Your task to perform on an android device: check data usage Image 0: 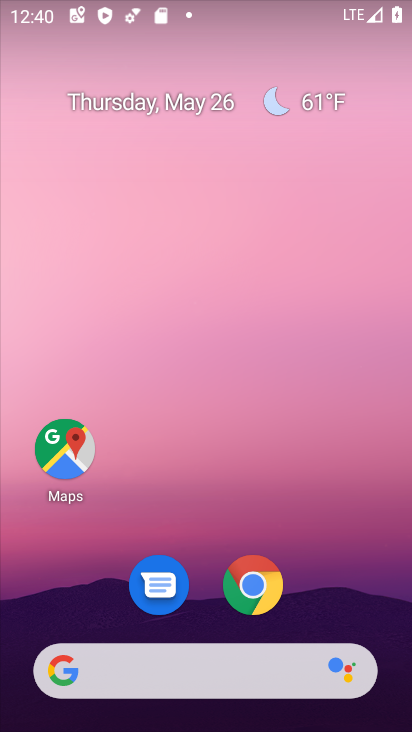
Step 0: drag from (225, 511) to (245, 24)
Your task to perform on an android device: check data usage Image 1: 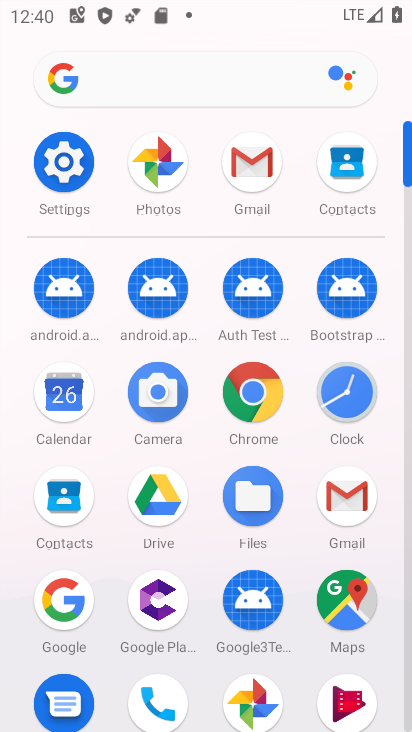
Step 1: click (68, 151)
Your task to perform on an android device: check data usage Image 2: 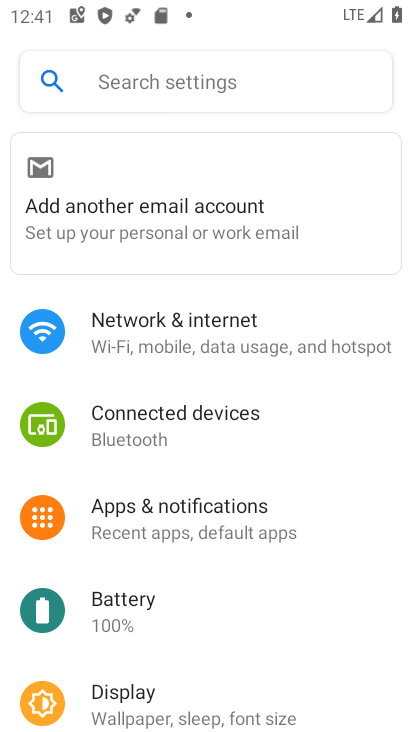
Step 2: click (257, 330)
Your task to perform on an android device: check data usage Image 3: 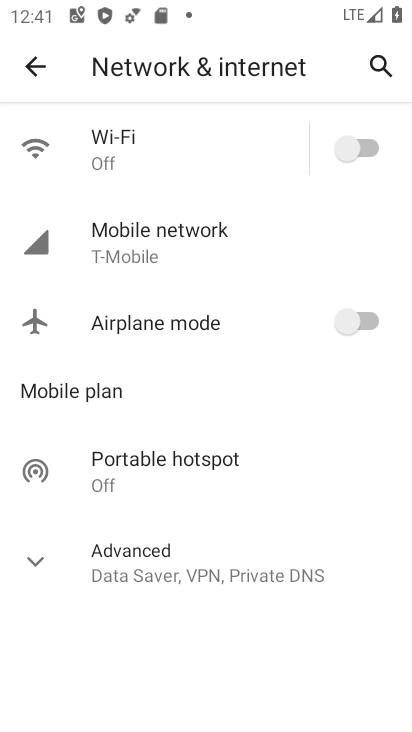
Step 3: click (224, 251)
Your task to perform on an android device: check data usage Image 4: 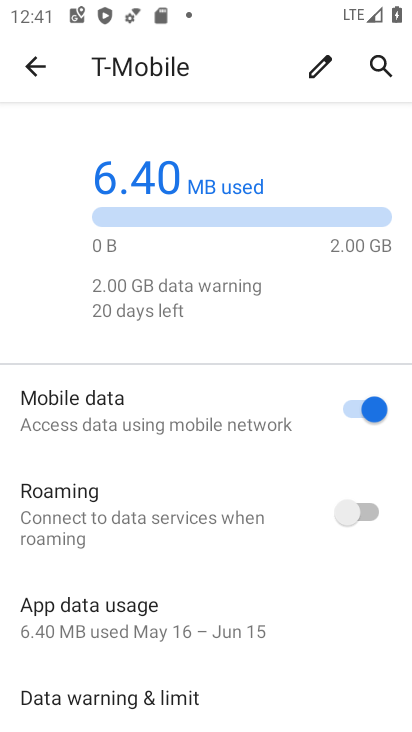
Step 4: task complete